Your task to perform on an android device: Search for logitech g pro on target.com, select the first entry, and add it to the cart. Image 0: 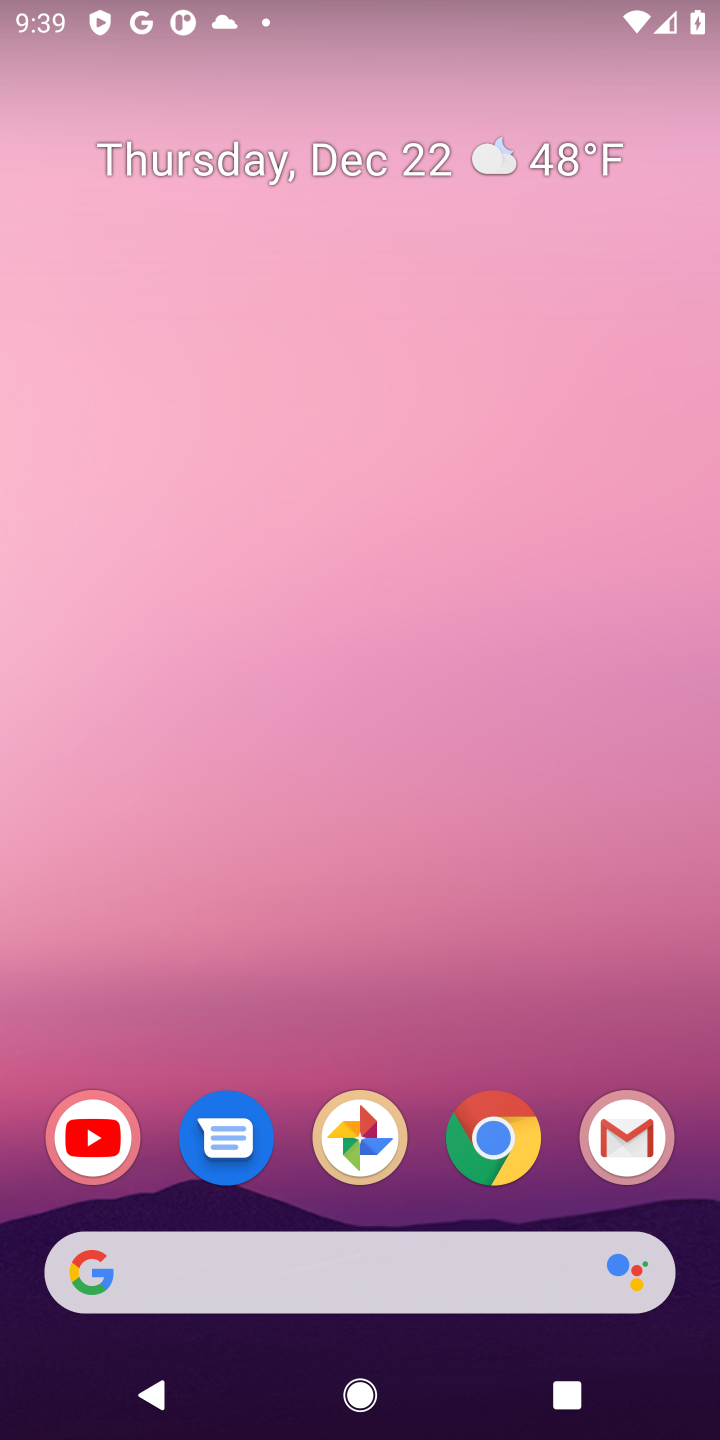
Step 0: click (492, 1161)
Your task to perform on an android device: Search for logitech g pro on target.com, select the first entry, and add it to the cart. Image 1: 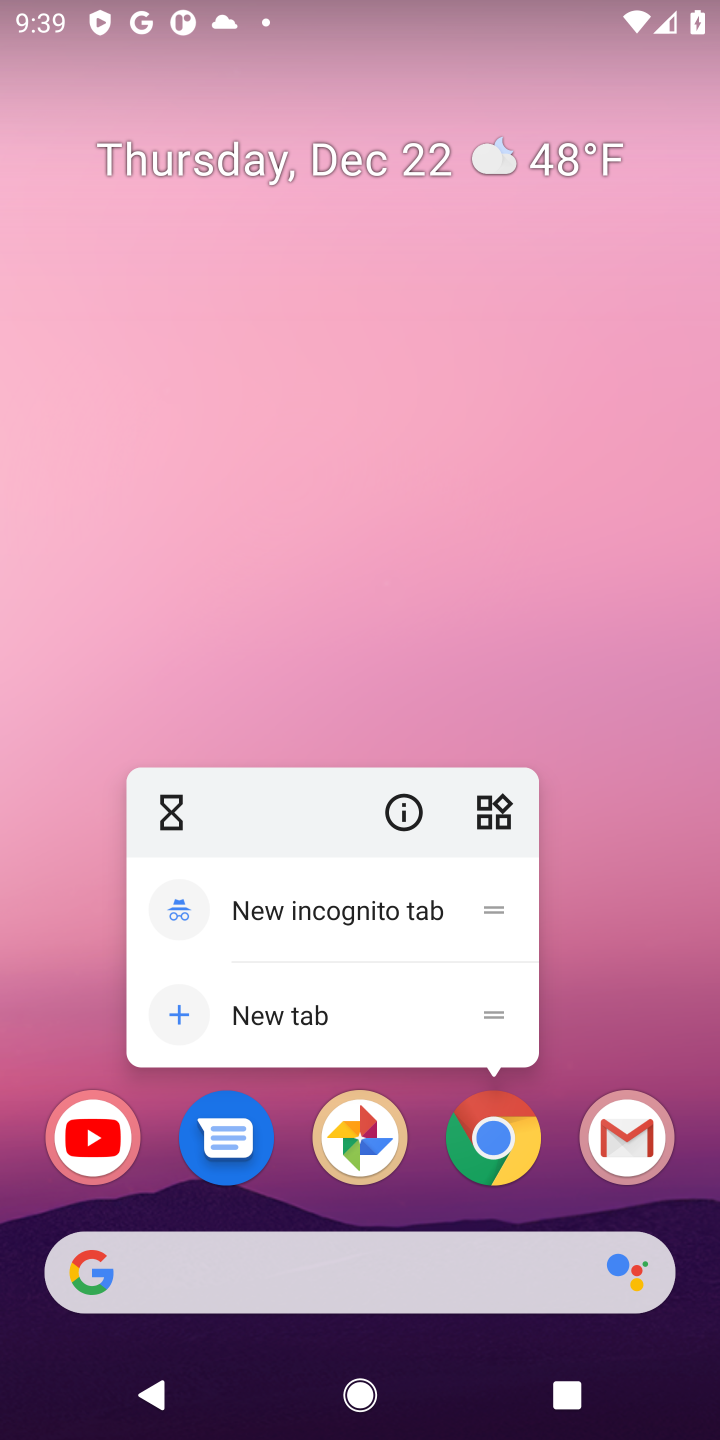
Step 1: click (492, 1161)
Your task to perform on an android device: Search for logitech g pro on target.com, select the first entry, and add it to the cart. Image 2: 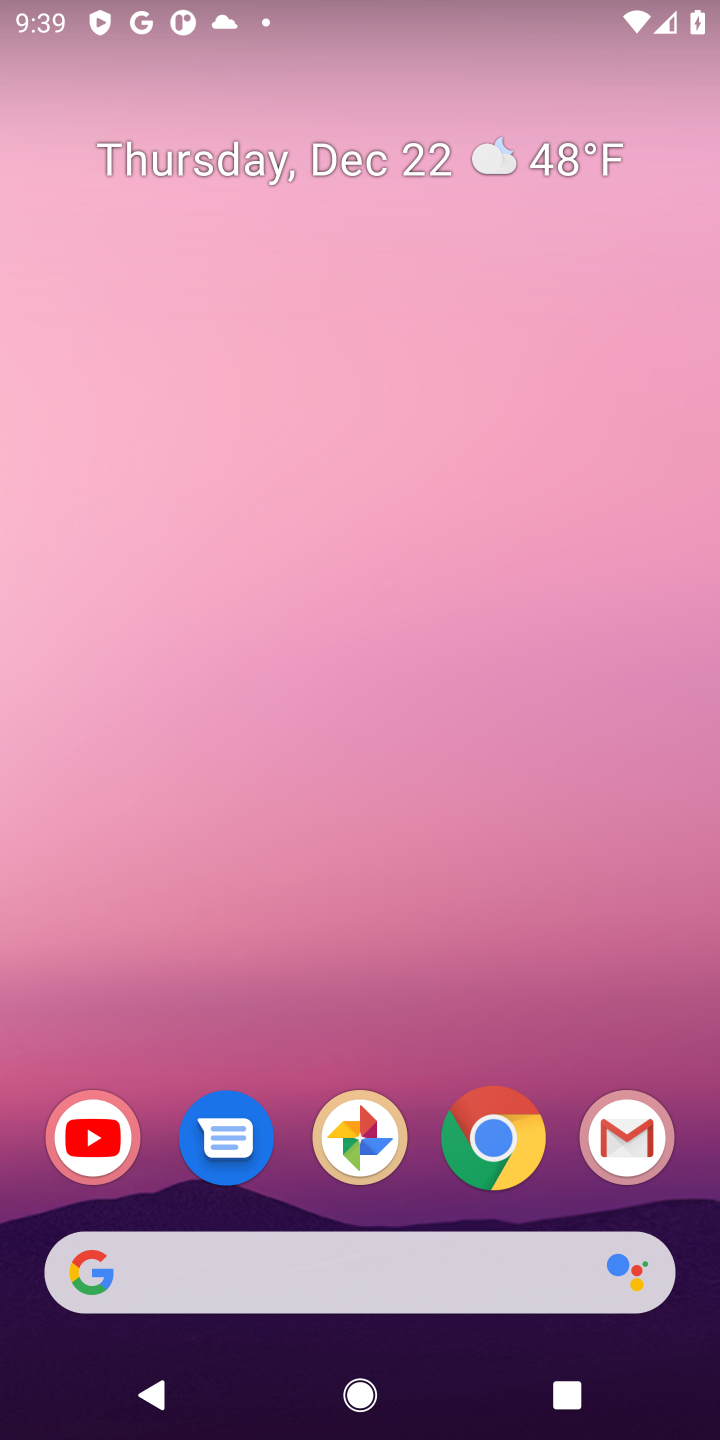
Step 2: click (464, 1227)
Your task to perform on an android device: Search for logitech g pro on target.com, select the first entry, and add it to the cart. Image 3: 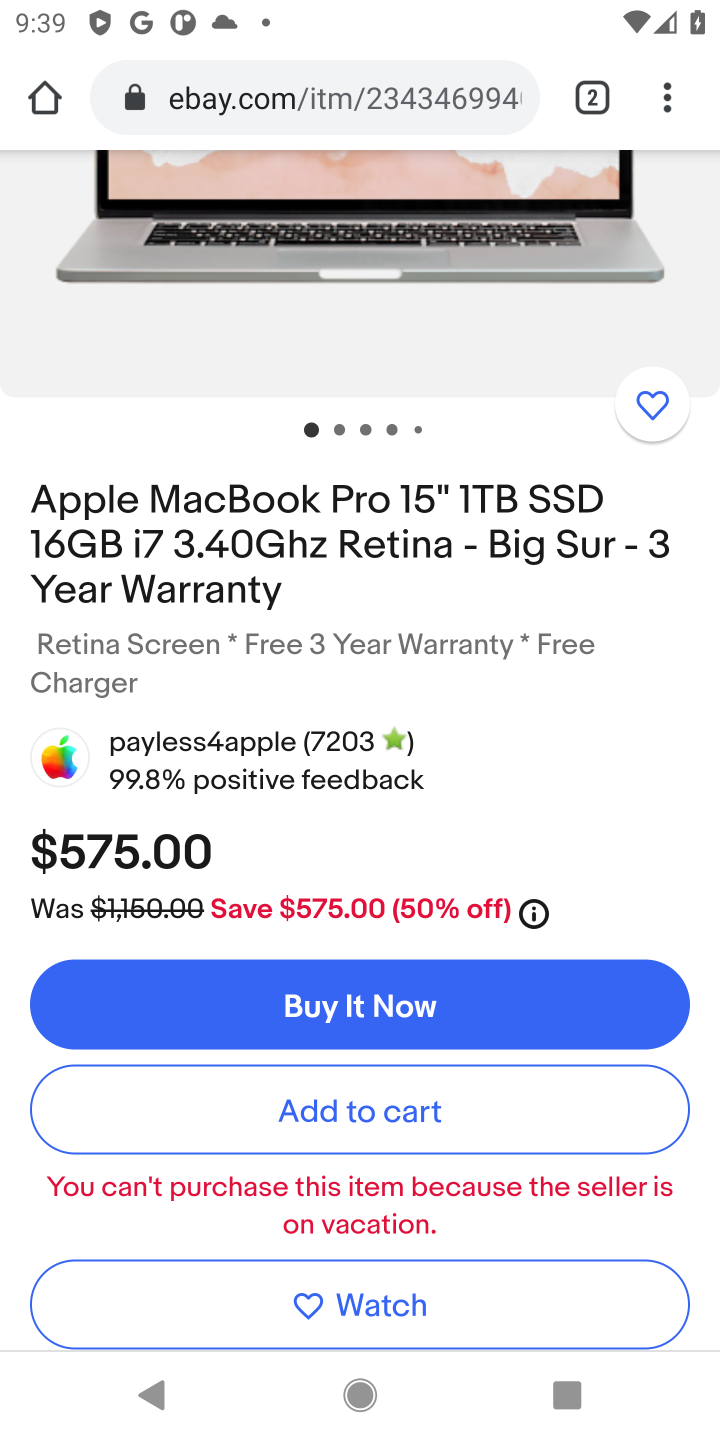
Step 3: click (243, 100)
Your task to perform on an android device: Search for logitech g pro on target.com, select the first entry, and add it to the cart. Image 4: 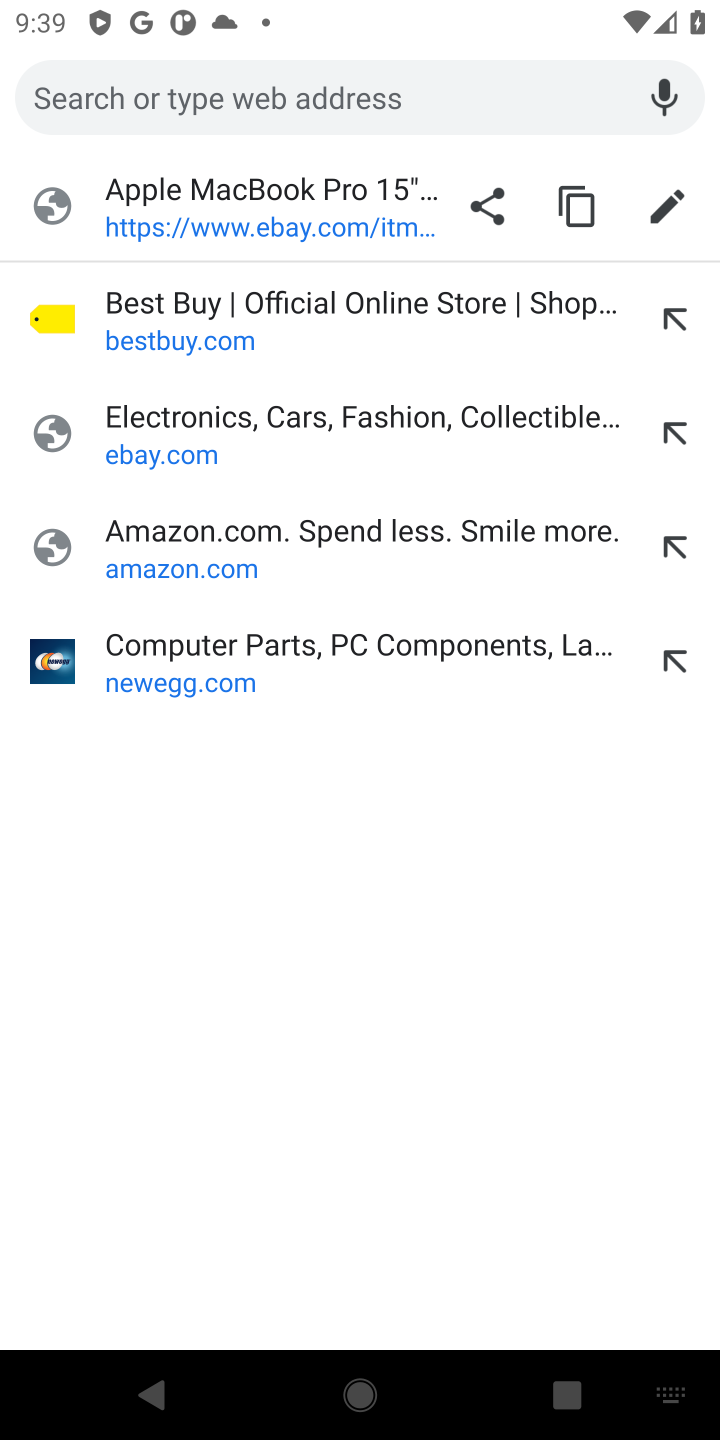
Step 4: type "target.com"
Your task to perform on an android device: Search for logitech g pro on target.com, select the first entry, and add it to the cart. Image 5: 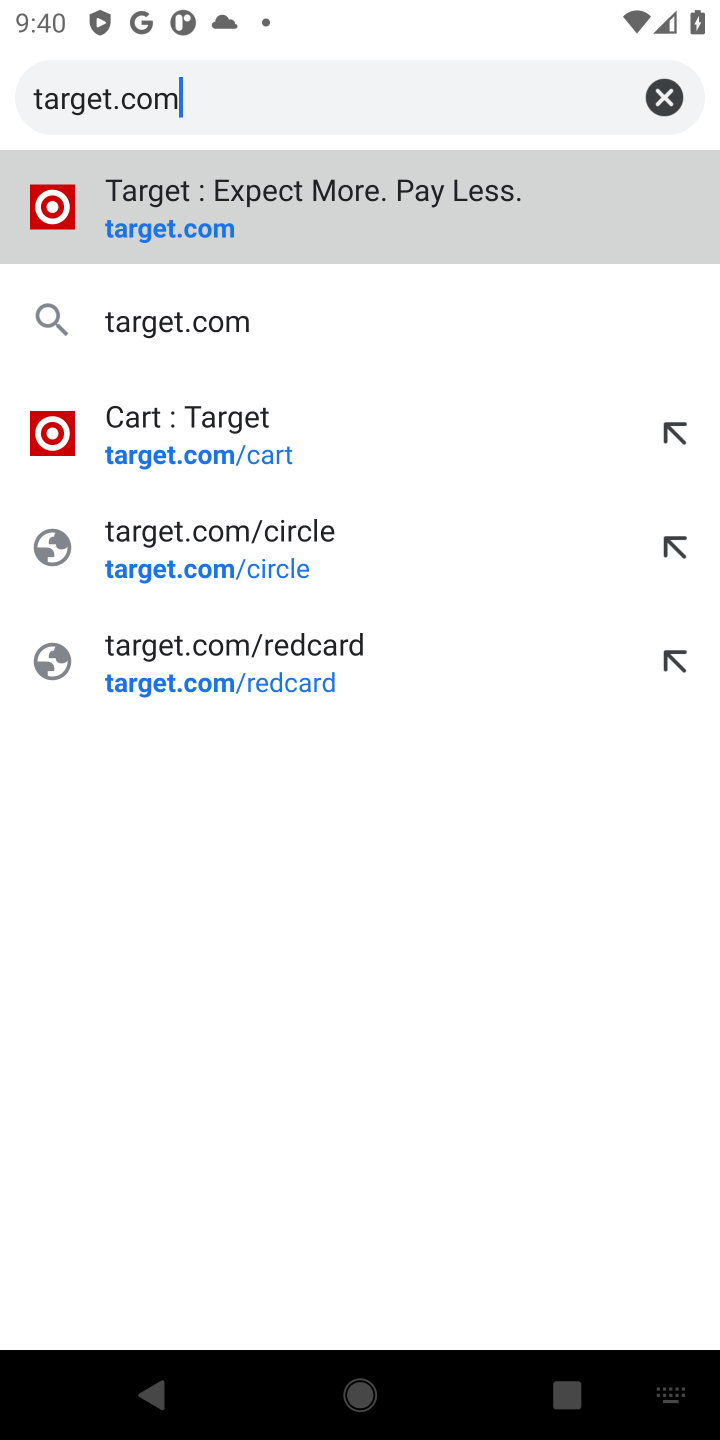
Step 5: click (403, 228)
Your task to perform on an android device: Search for logitech g pro on target.com, select the first entry, and add it to the cart. Image 6: 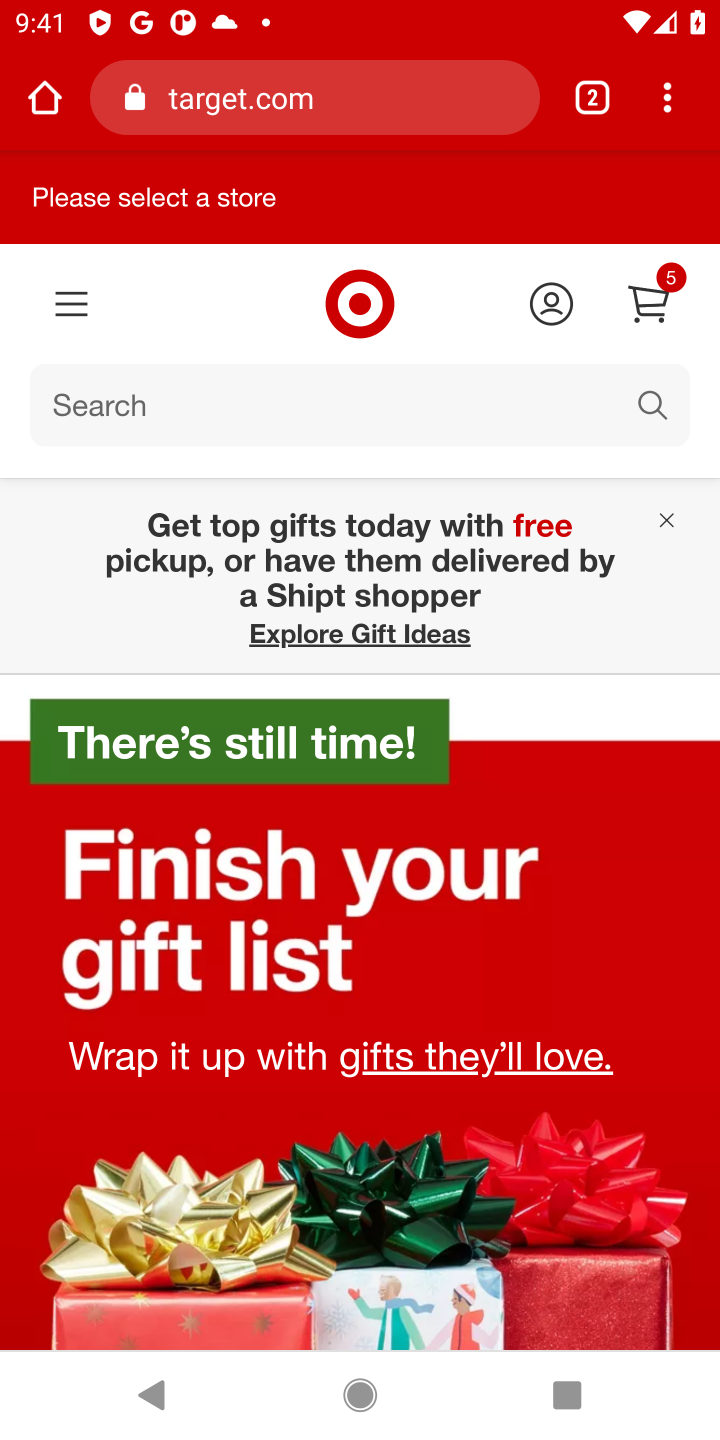
Step 6: click (265, 418)
Your task to perform on an android device: Search for logitech g pro on target.com, select the first entry, and add it to the cart. Image 7: 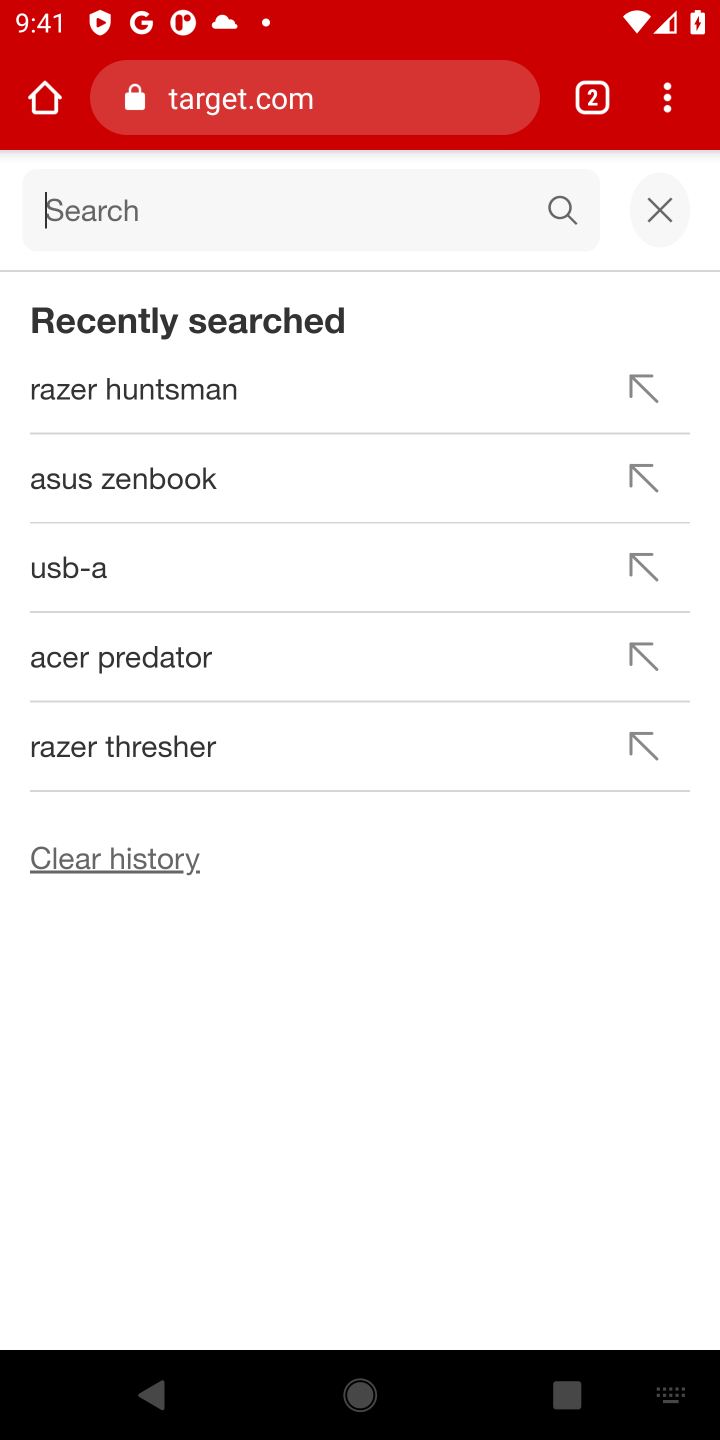
Step 7: type "logitech g pro"
Your task to perform on an android device: Search for logitech g pro on target.com, select the first entry, and add it to the cart. Image 8: 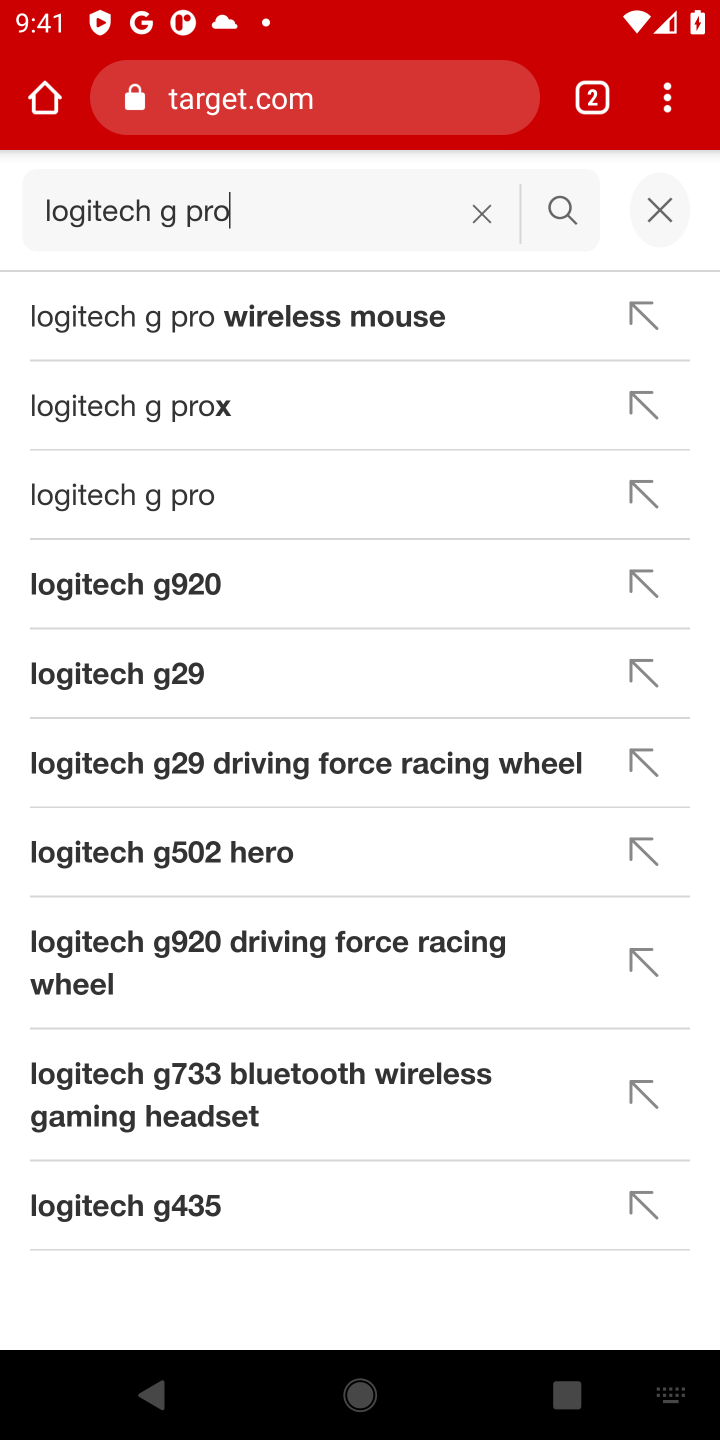
Step 8: press enter
Your task to perform on an android device: Search for logitech g pro on target.com, select the first entry, and add it to the cart. Image 9: 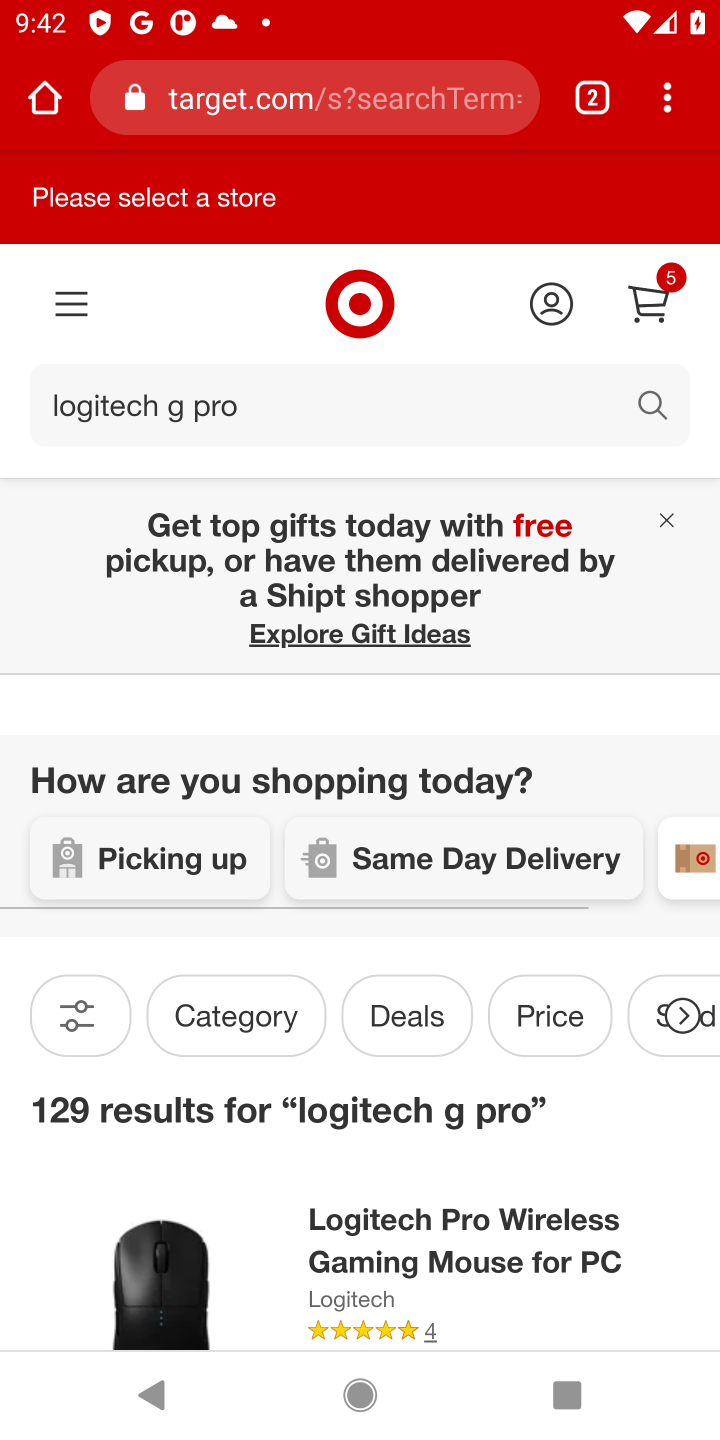
Step 9: drag from (545, 1155) to (505, 631)
Your task to perform on an android device: Search for logitech g pro on target.com, select the first entry, and add it to the cart. Image 10: 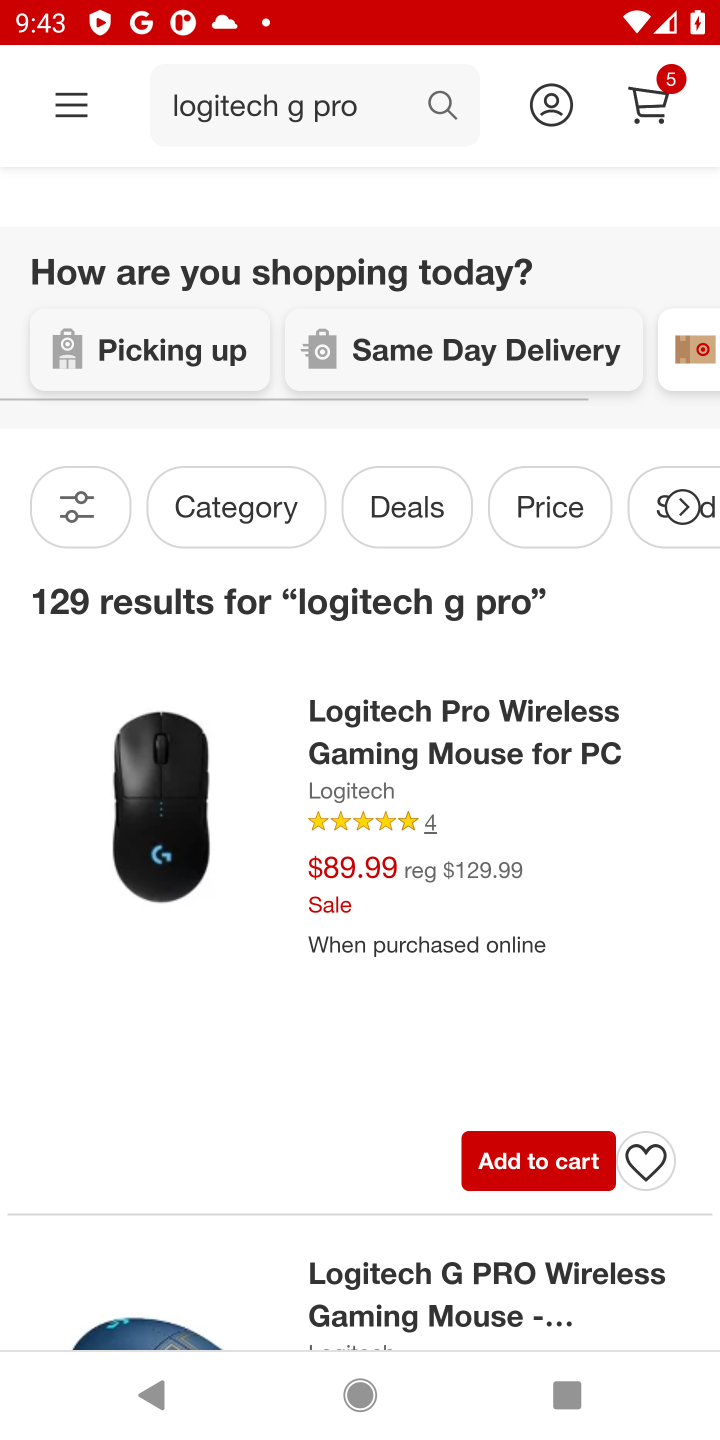
Step 10: click (436, 741)
Your task to perform on an android device: Search for logitech g pro on target.com, select the first entry, and add it to the cart. Image 11: 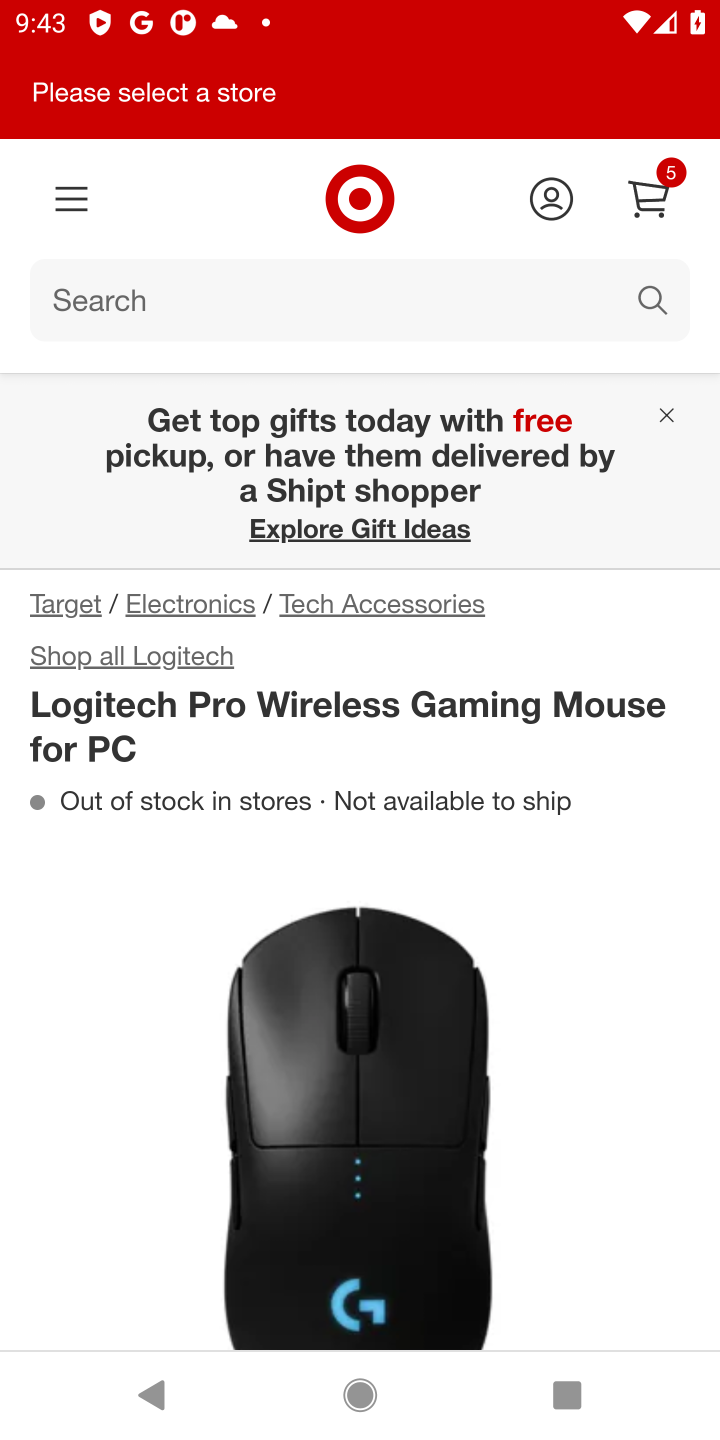
Step 11: drag from (463, 881) to (449, 312)
Your task to perform on an android device: Search for logitech g pro on target.com, select the first entry, and add it to the cart. Image 12: 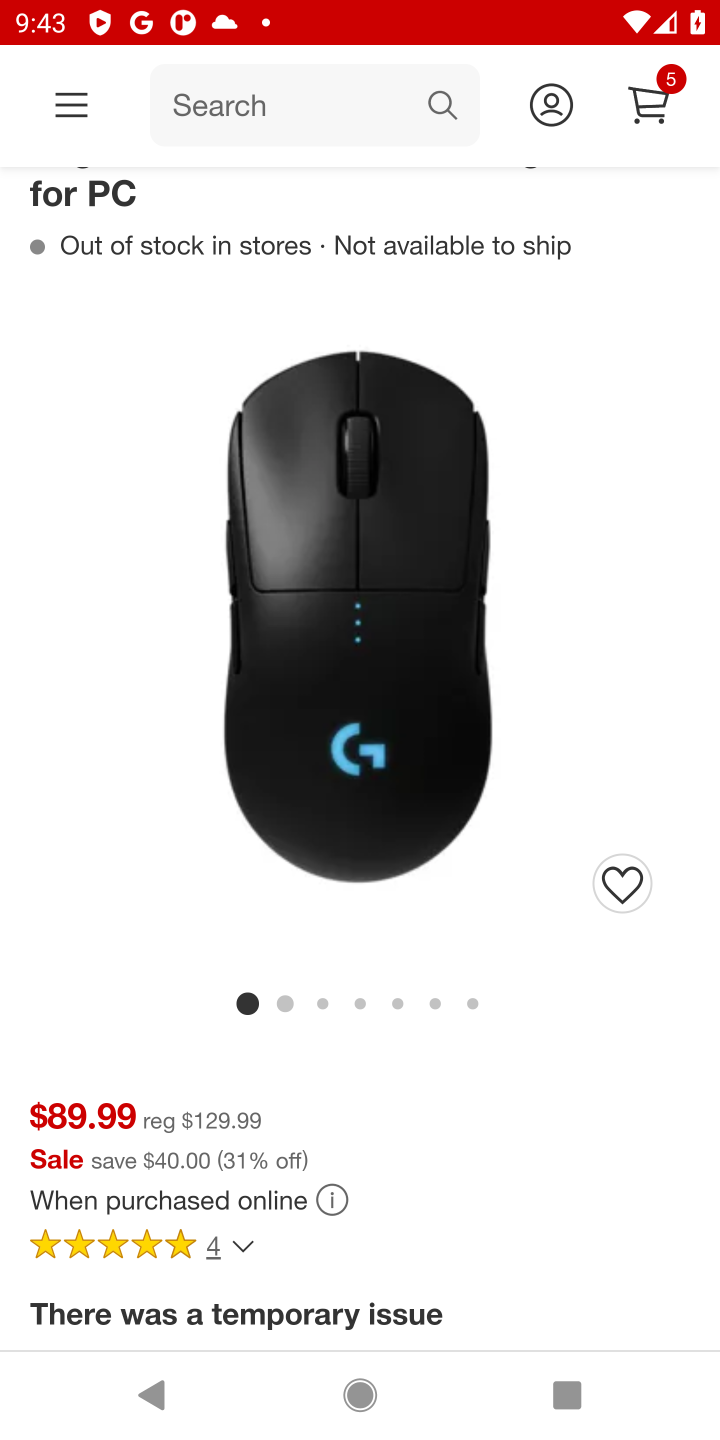
Step 12: drag from (408, 1102) to (538, 361)
Your task to perform on an android device: Search for logitech g pro on target.com, select the first entry, and add it to the cart. Image 13: 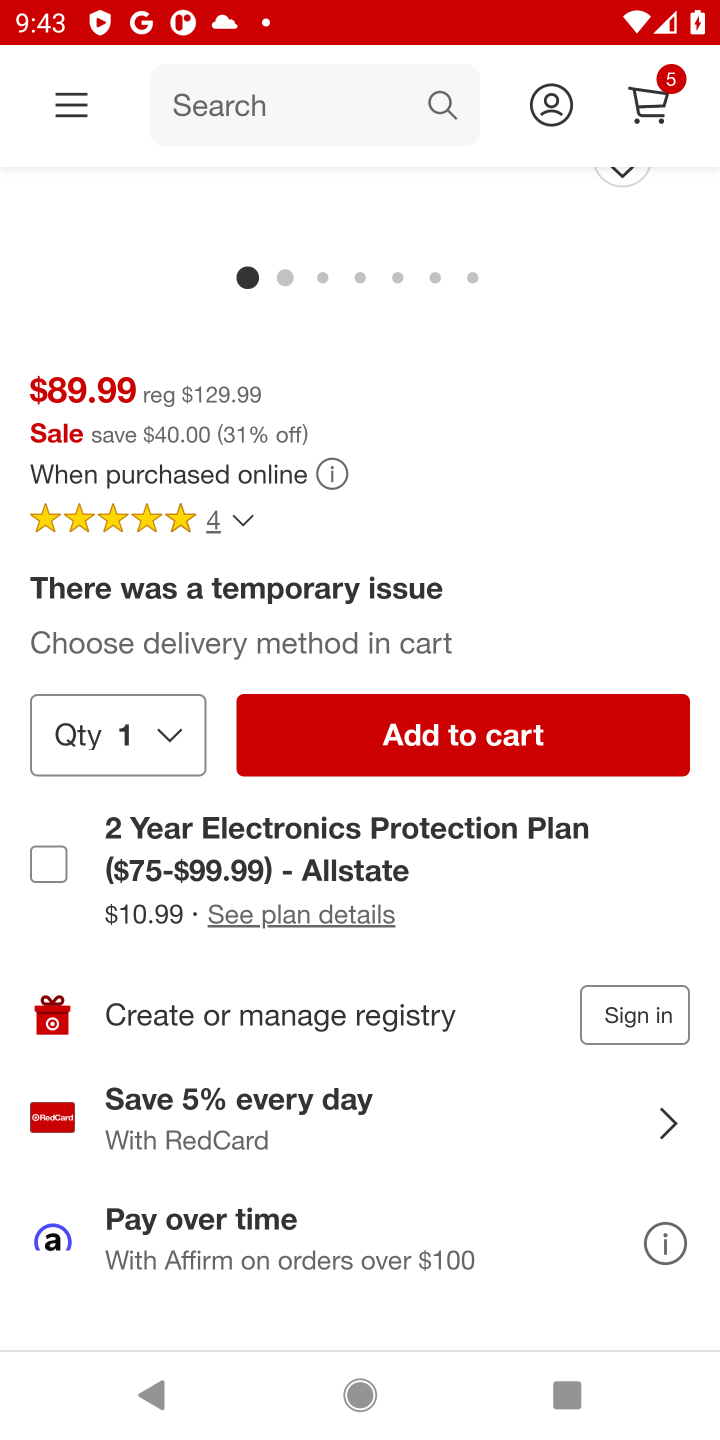
Step 13: click (506, 745)
Your task to perform on an android device: Search for logitech g pro on target.com, select the first entry, and add it to the cart. Image 14: 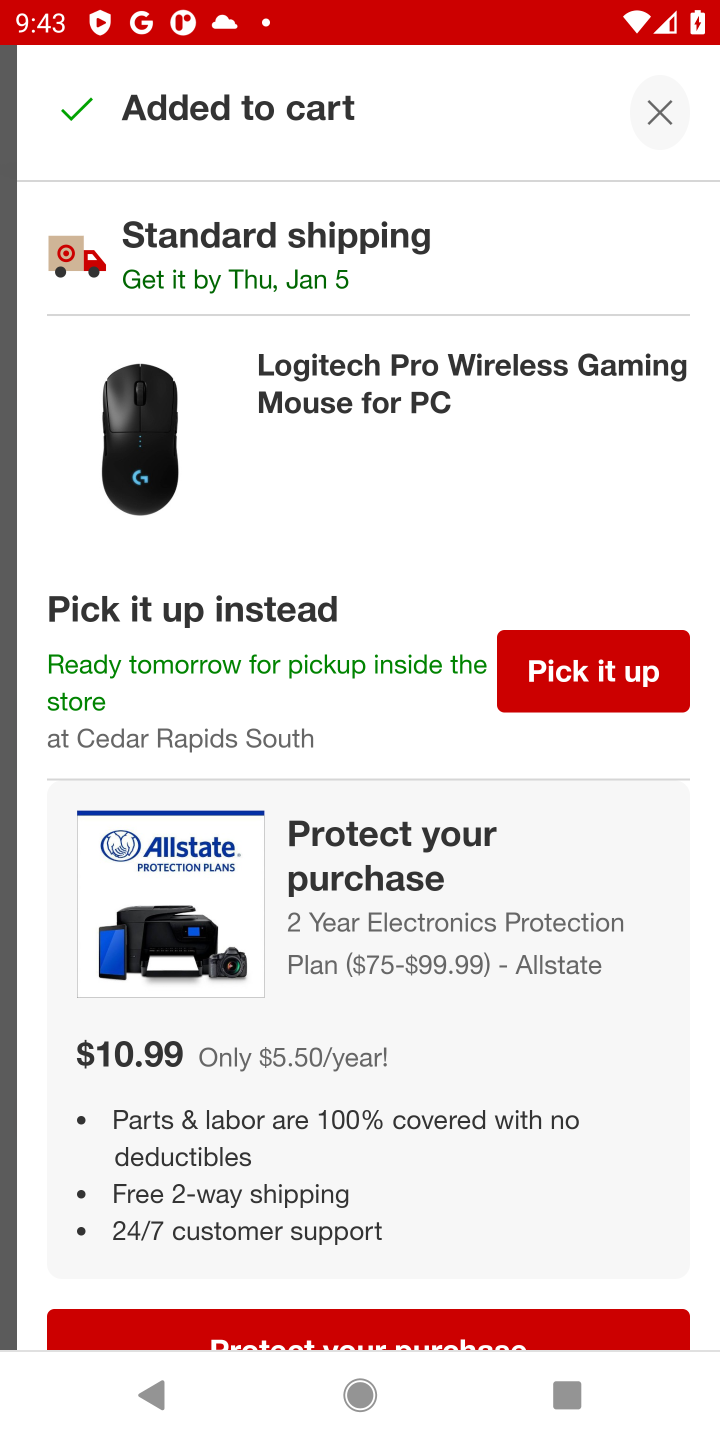
Step 14: drag from (533, 885) to (501, 378)
Your task to perform on an android device: Search for logitech g pro on target.com, select the first entry, and add it to the cart. Image 15: 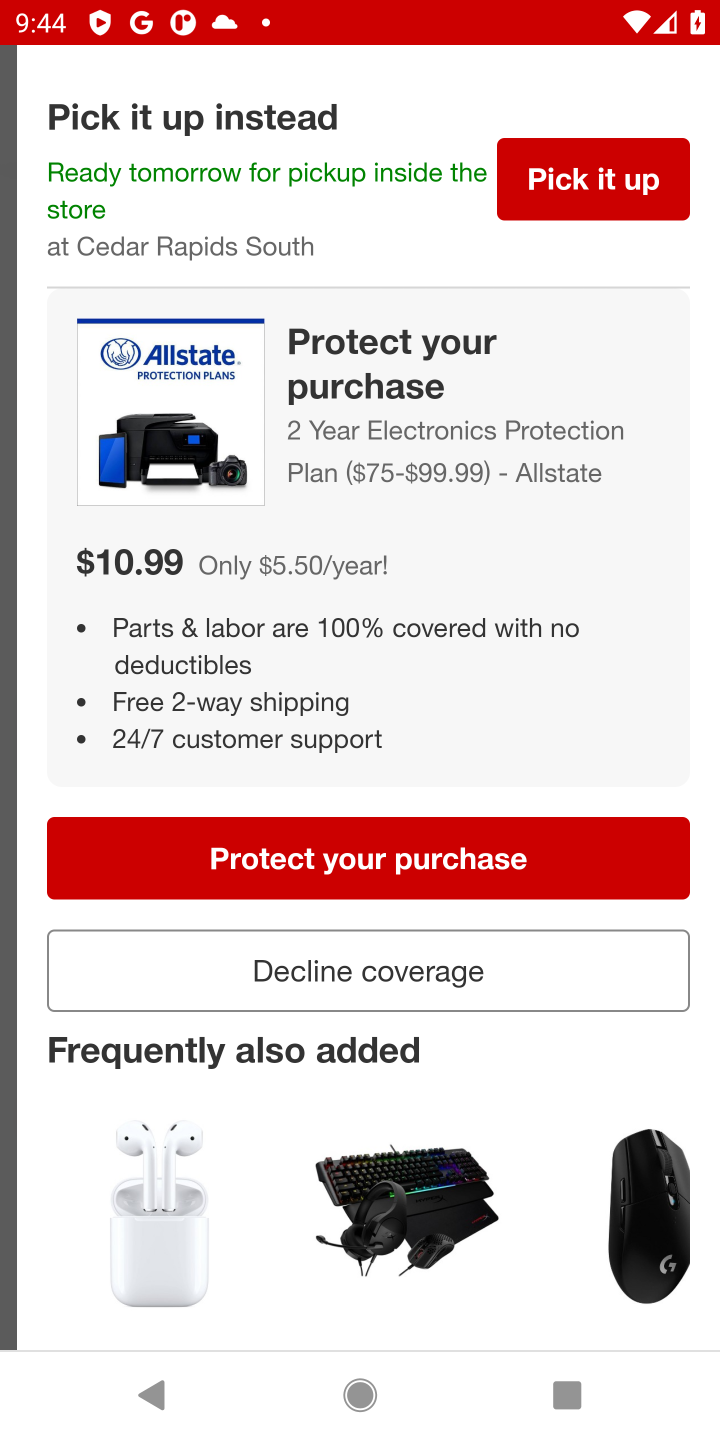
Step 15: click (406, 861)
Your task to perform on an android device: Search for logitech g pro on target.com, select the first entry, and add it to the cart. Image 16: 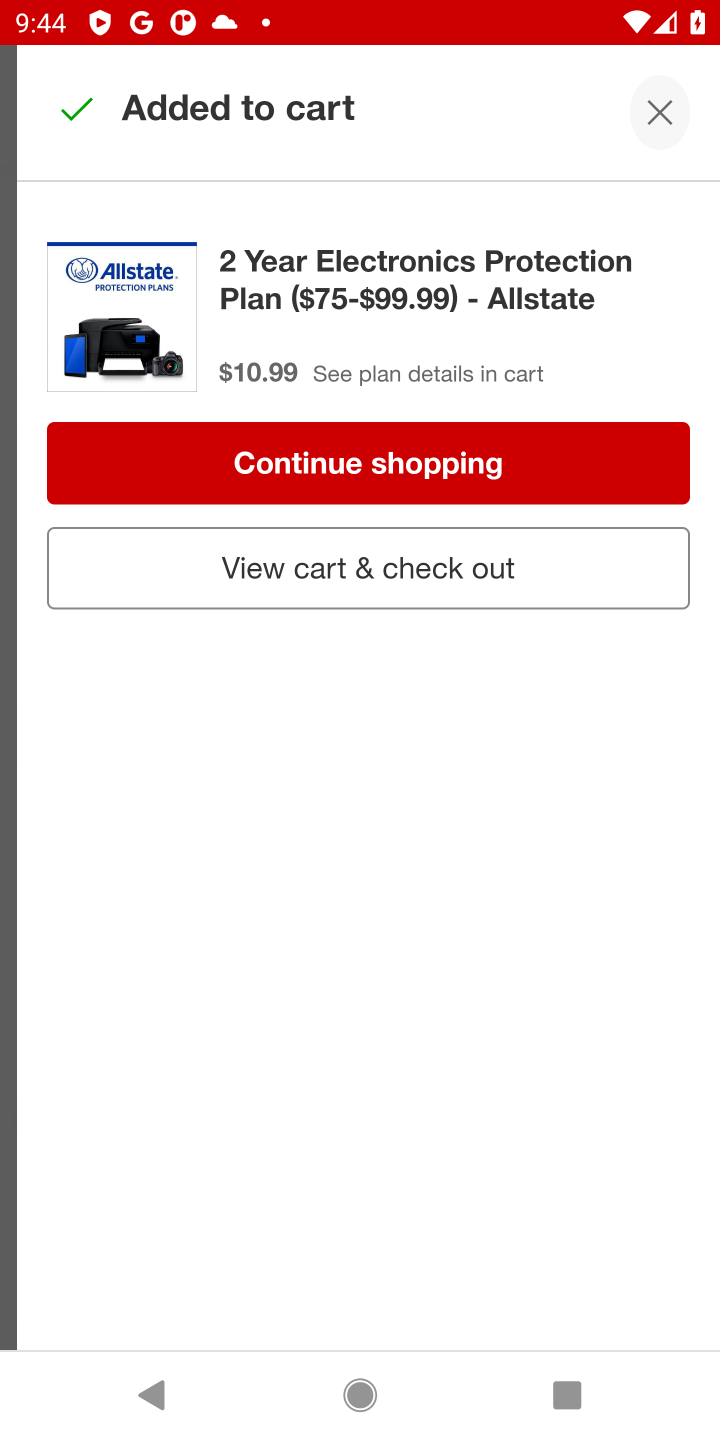
Step 16: click (405, 574)
Your task to perform on an android device: Search for logitech g pro on target.com, select the first entry, and add it to the cart. Image 17: 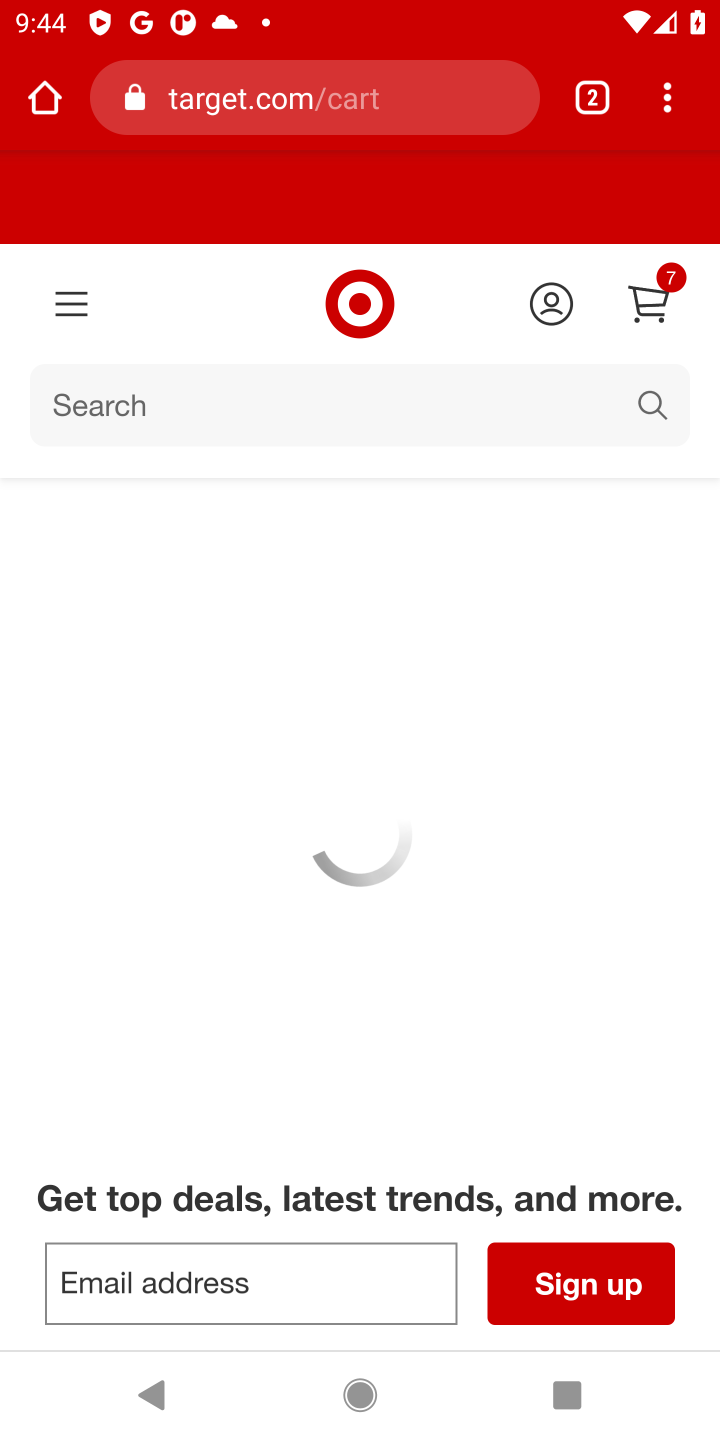
Step 17: task complete